Your task to perform on an android device: Open privacy settings Image 0: 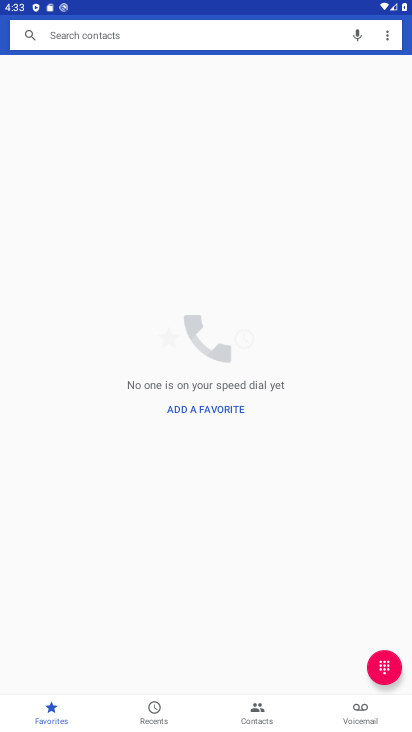
Step 0: press home button
Your task to perform on an android device: Open privacy settings Image 1: 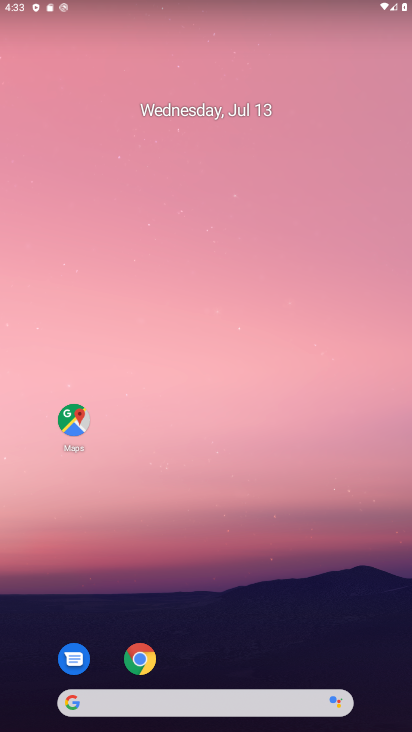
Step 1: click (223, 44)
Your task to perform on an android device: Open privacy settings Image 2: 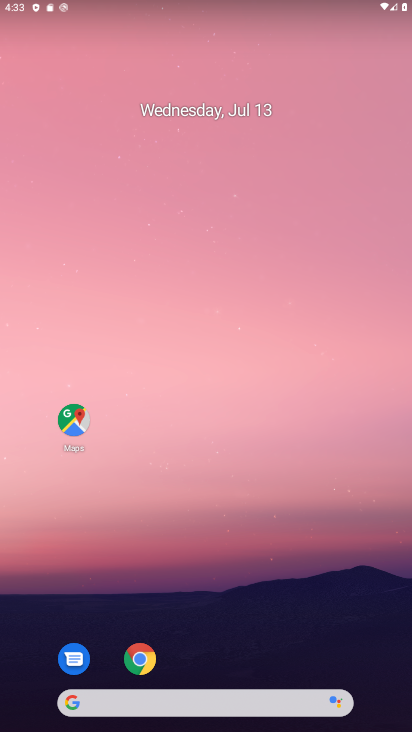
Step 2: drag from (306, 603) to (263, 161)
Your task to perform on an android device: Open privacy settings Image 3: 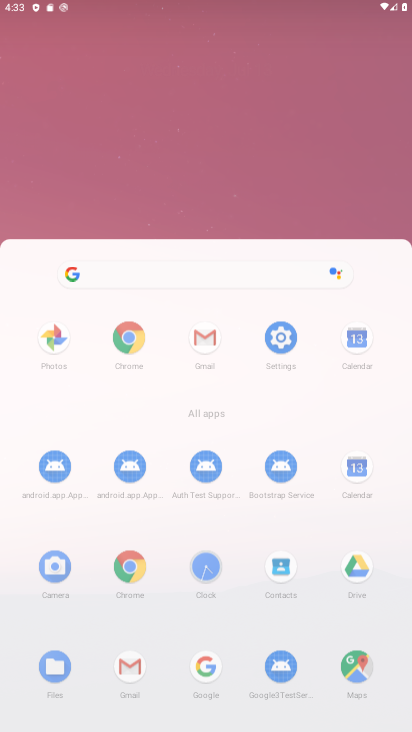
Step 3: press home button
Your task to perform on an android device: Open privacy settings Image 4: 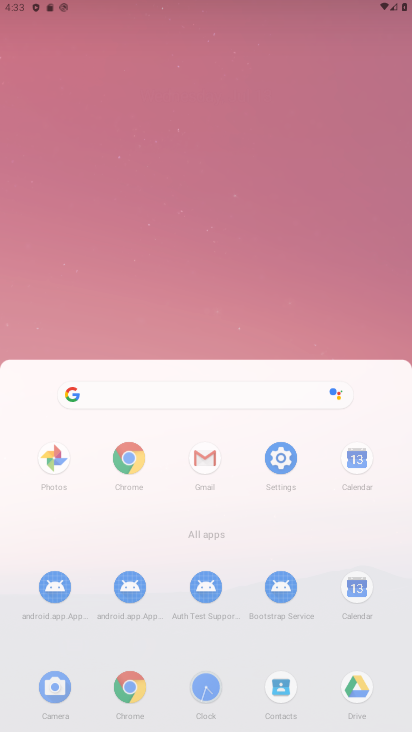
Step 4: drag from (297, 149) to (300, 94)
Your task to perform on an android device: Open privacy settings Image 5: 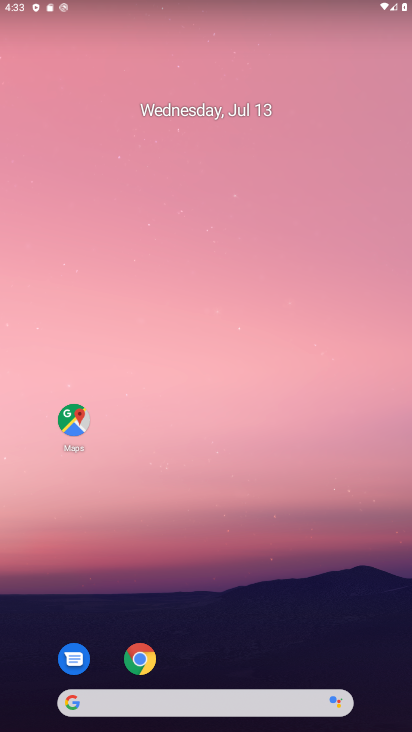
Step 5: drag from (325, 566) to (312, 28)
Your task to perform on an android device: Open privacy settings Image 6: 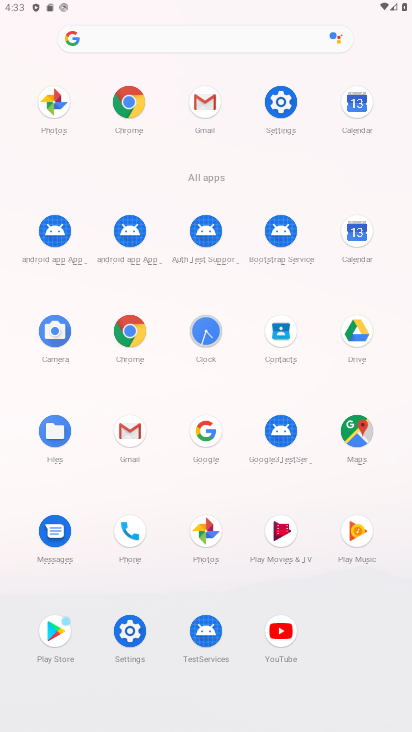
Step 6: click (288, 100)
Your task to perform on an android device: Open privacy settings Image 7: 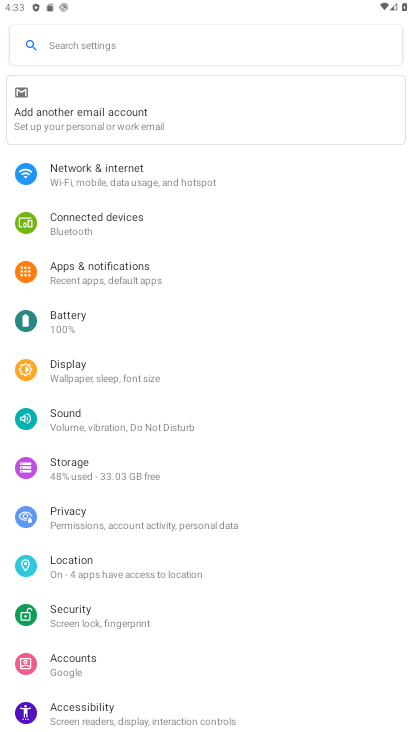
Step 7: click (103, 525)
Your task to perform on an android device: Open privacy settings Image 8: 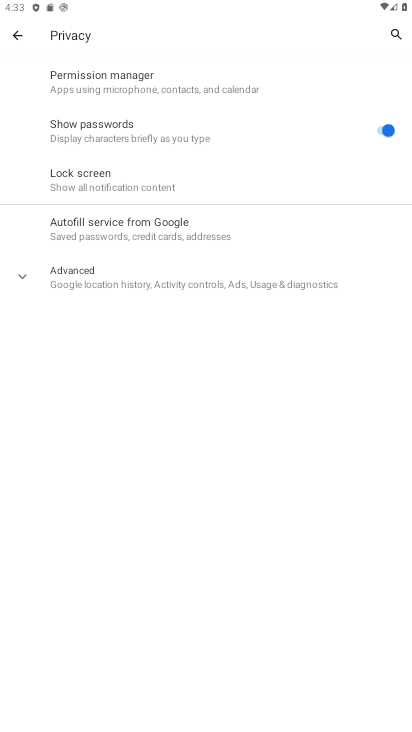
Step 8: task complete